Your task to perform on an android device: remove spam from my inbox in the gmail app Image 0: 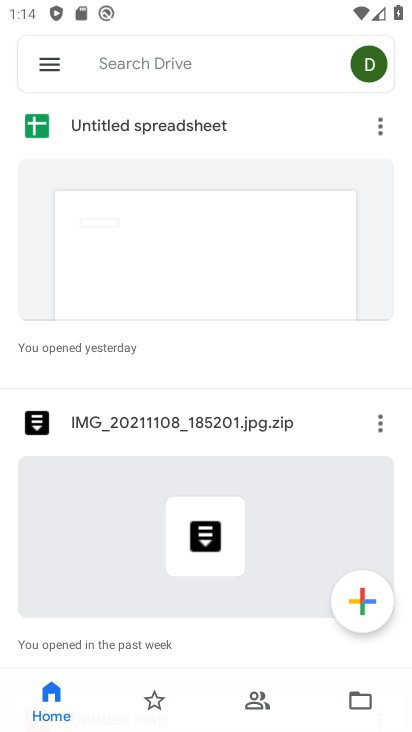
Step 0: press home button
Your task to perform on an android device: remove spam from my inbox in the gmail app Image 1: 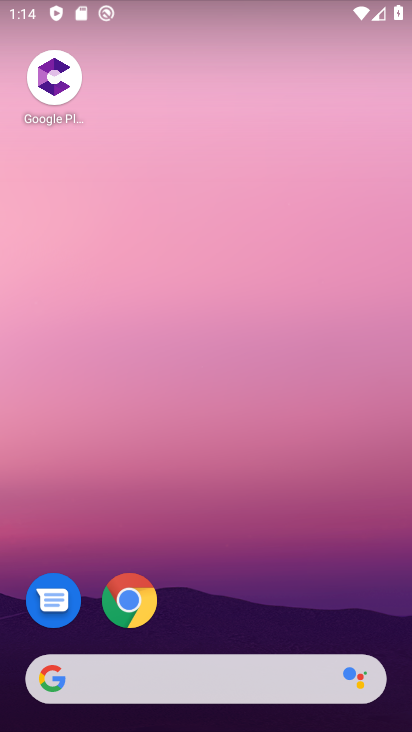
Step 1: drag from (217, 662) to (242, 216)
Your task to perform on an android device: remove spam from my inbox in the gmail app Image 2: 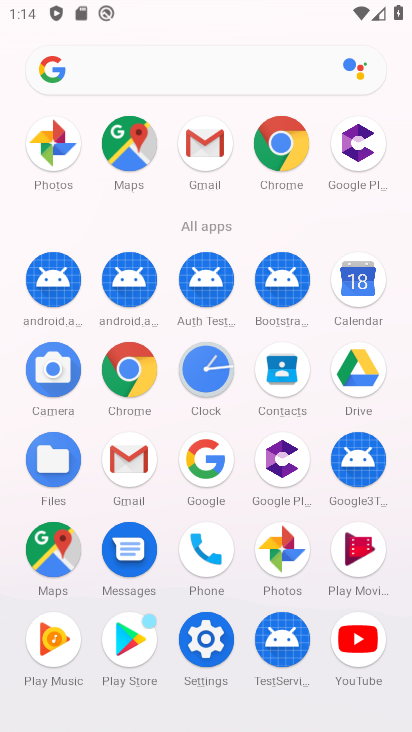
Step 2: click (139, 458)
Your task to perform on an android device: remove spam from my inbox in the gmail app Image 3: 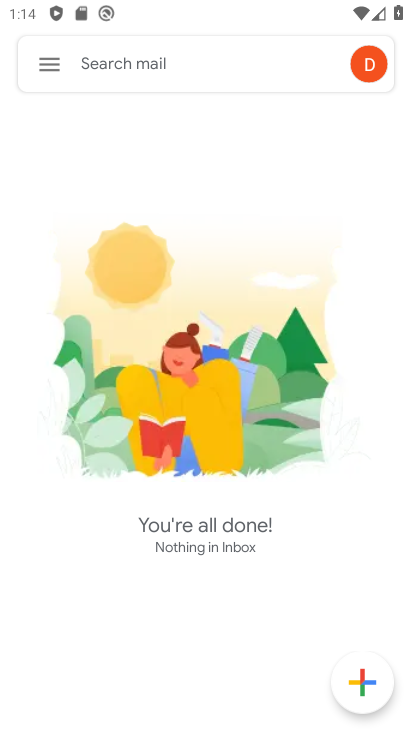
Step 3: click (42, 63)
Your task to perform on an android device: remove spam from my inbox in the gmail app Image 4: 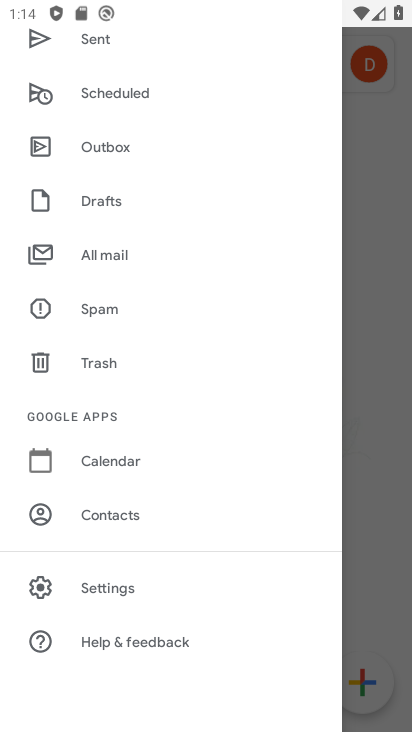
Step 4: drag from (98, 48) to (154, 471)
Your task to perform on an android device: remove spam from my inbox in the gmail app Image 5: 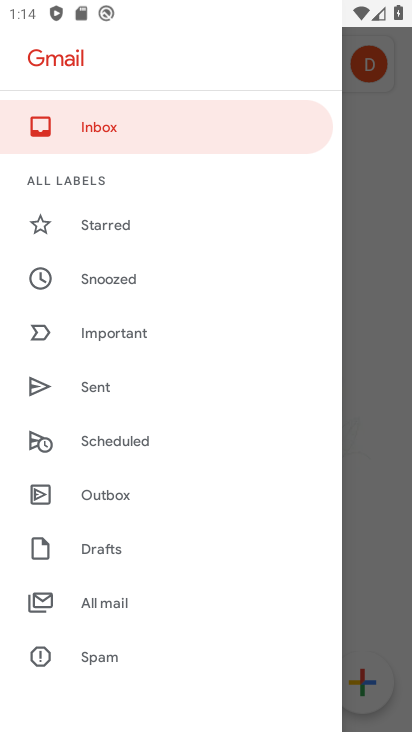
Step 5: click (110, 657)
Your task to perform on an android device: remove spam from my inbox in the gmail app Image 6: 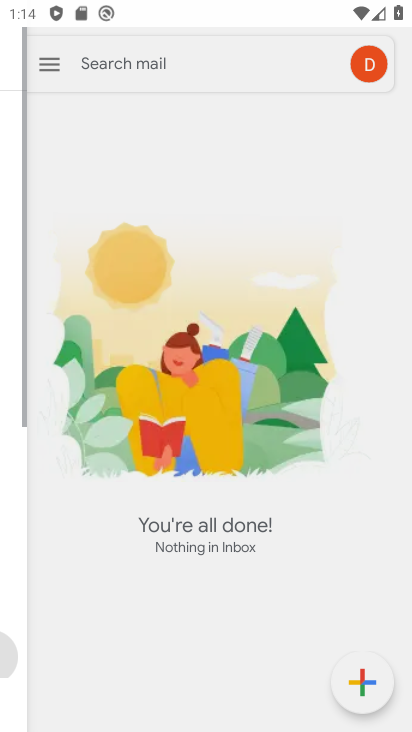
Step 6: click (75, 661)
Your task to perform on an android device: remove spam from my inbox in the gmail app Image 7: 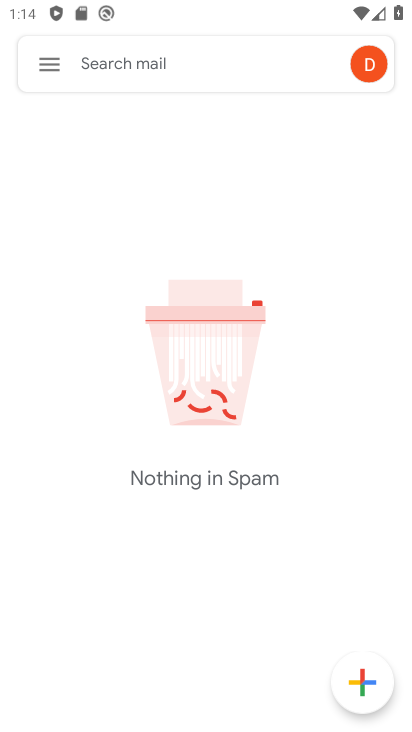
Step 7: task complete